Your task to perform on an android device: check the backup settings in the google photos Image 0: 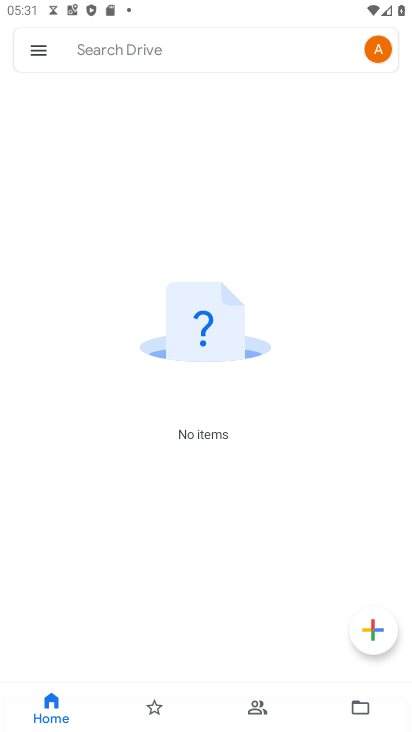
Step 0: press home button
Your task to perform on an android device: check the backup settings in the google photos Image 1: 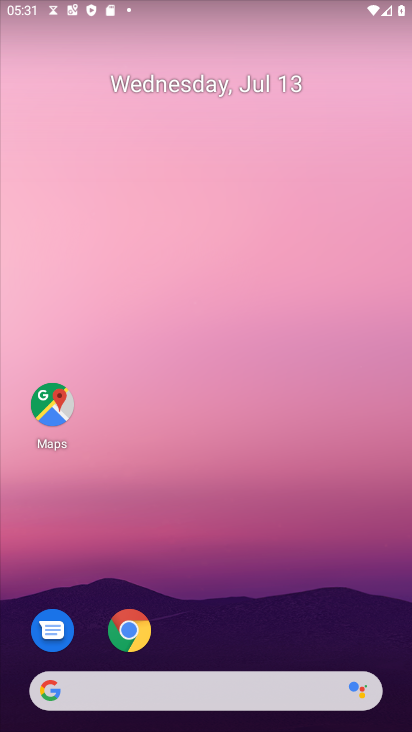
Step 1: drag from (298, 716) to (322, 127)
Your task to perform on an android device: check the backup settings in the google photos Image 2: 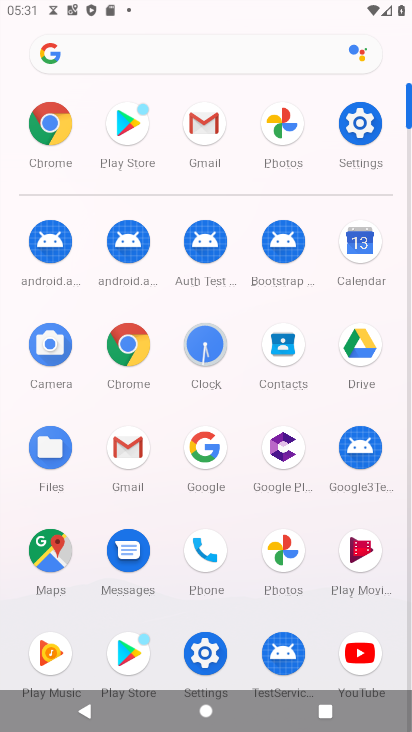
Step 2: click (276, 552)
Your task to perform on an android device: check the backup settings in the google photos Image 3: 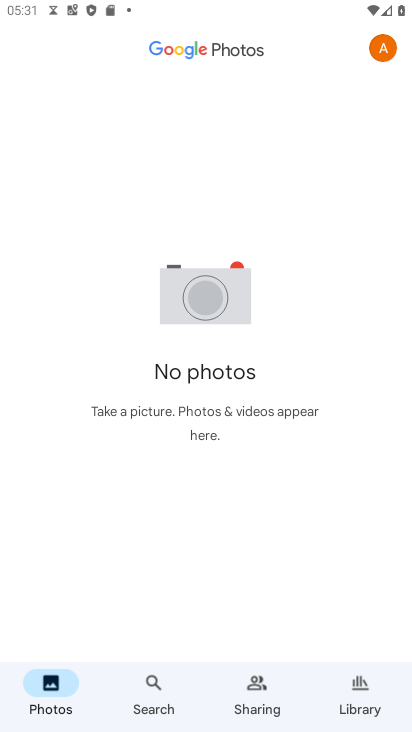
Step 3: click (386, 43)
Your task to perform on an android device: check the backup settings in the google photos Image 4: 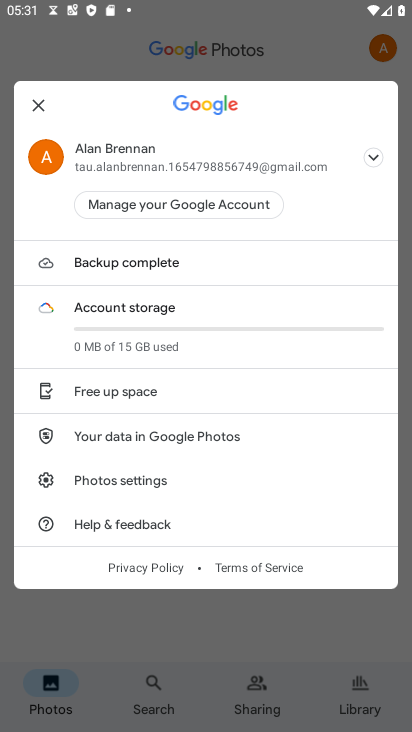
Step 4: click (159, 478)
Your task to perform on an android device: check the backup settings in the google photos Image 5: 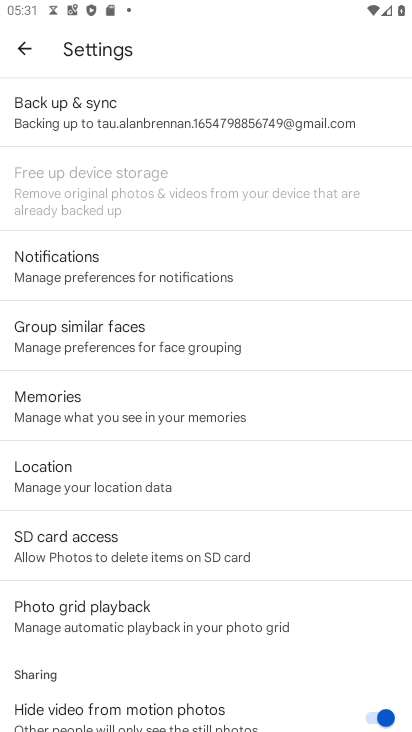
Step 5: click (145, 123)
Your task to perform on an android device: check the backup settings in the google photos Image 6: 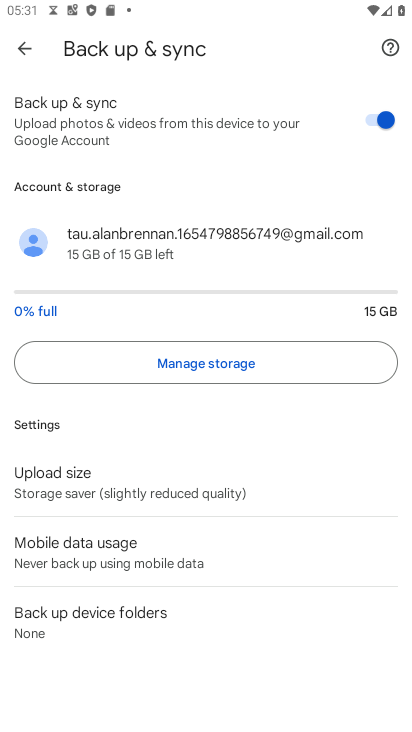
Step 6: task complete